Your task to perform on an android device: Open settings on Google Maps Image 0: 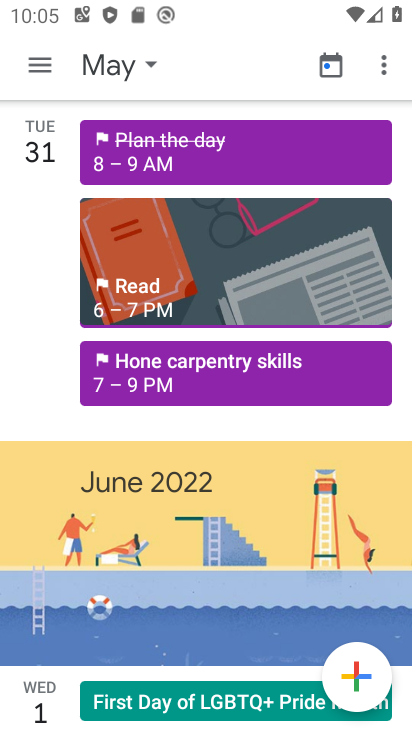
Step 0: press home button
Your task to perform on an android device: Open settings on Google Maps Image 1: 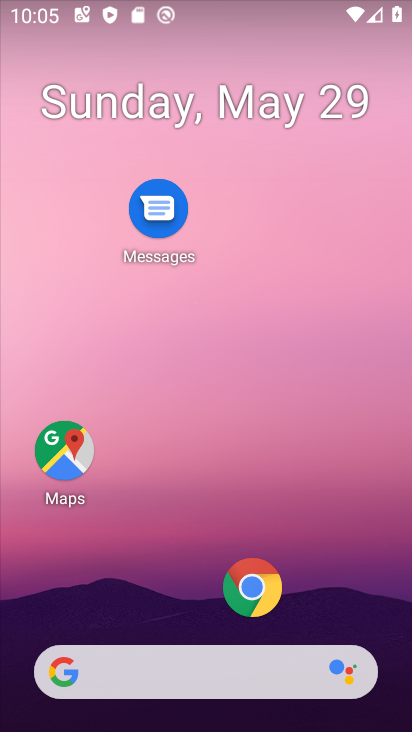
Step 1: click (62, 447)
Your task to perform on an android device: Open settings on Google Maps Image 2: 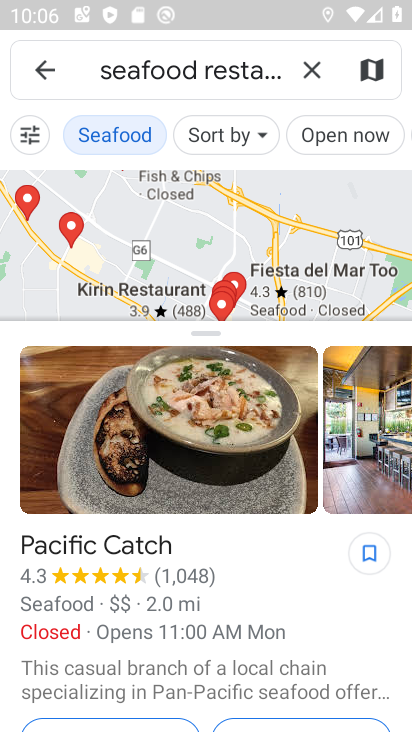
Step 2: task complete